Your task to perform on an android device: open a bookmark in the chrome app Image 0: 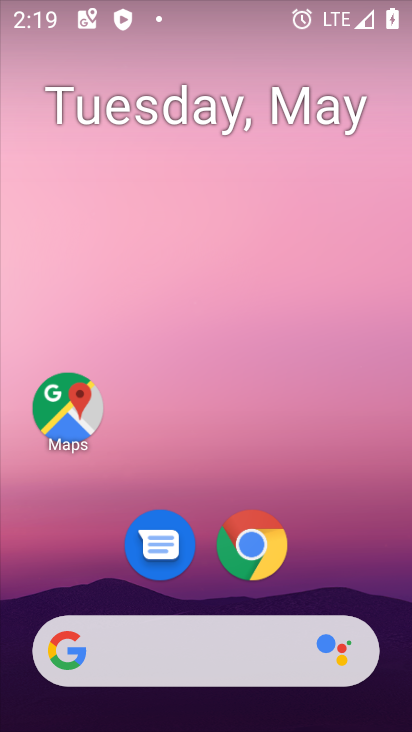
Step 0: drag from (356, 520) to (228, 0)
Your task to perform on an android device: open a bookmark in the chrome app Image 1: 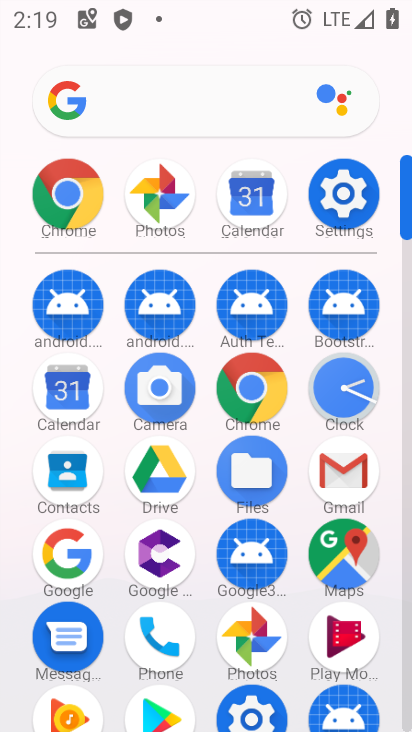
Step 1: drag from (20, 606) to (19, 214)
Your task to perform on an android device: open a bookmark in the chrome app Image 2: 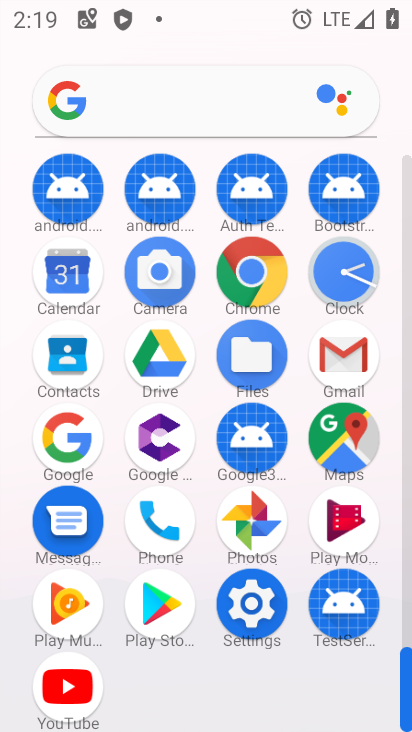
Step 2: click (248, 267)
Your task to perform on an android device: open a bookmark in the chrome app Image 3: 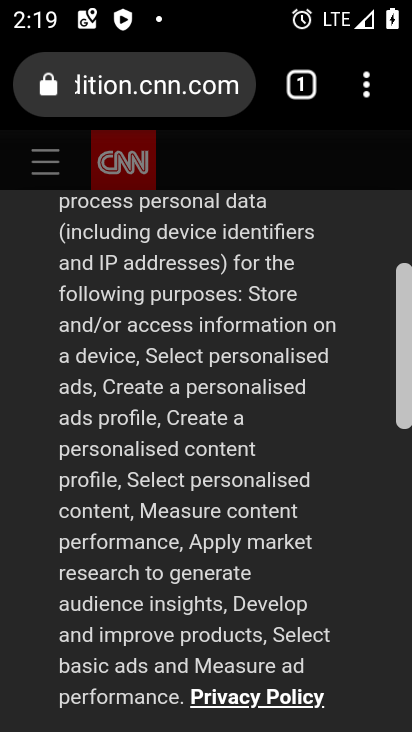
Step 3: task complete